Your task to perform on an android device: turn pop-ups on in chrome Image 0: 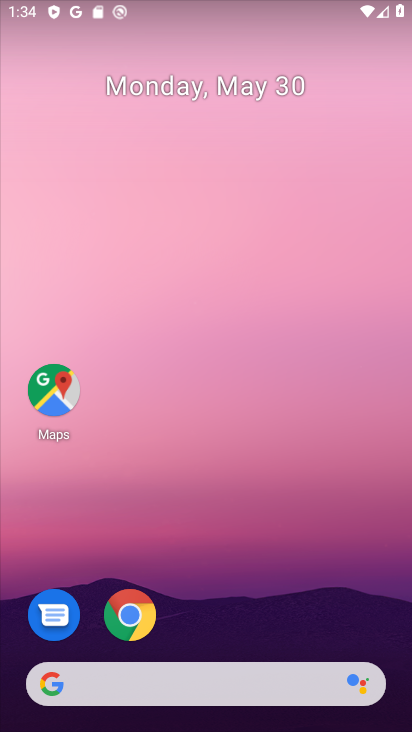
Step 0: click (134, 635)
Your task to perform on an android device: turn pop-ups on in chrome Image 1: 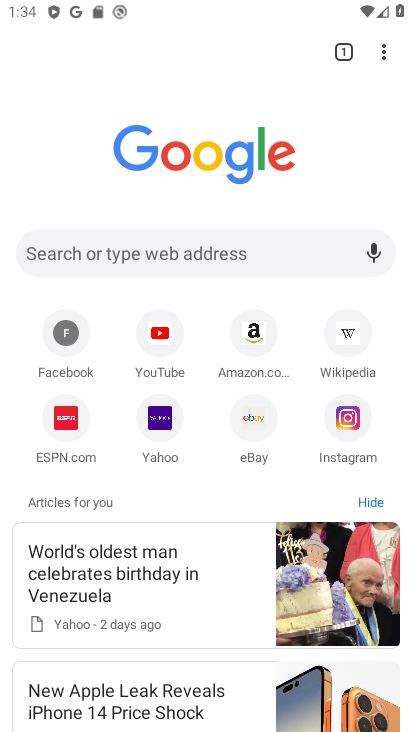
Step 1: click (385, 44)
Your task to perform on an android device: turn pop-ups on in chrome Image 2: 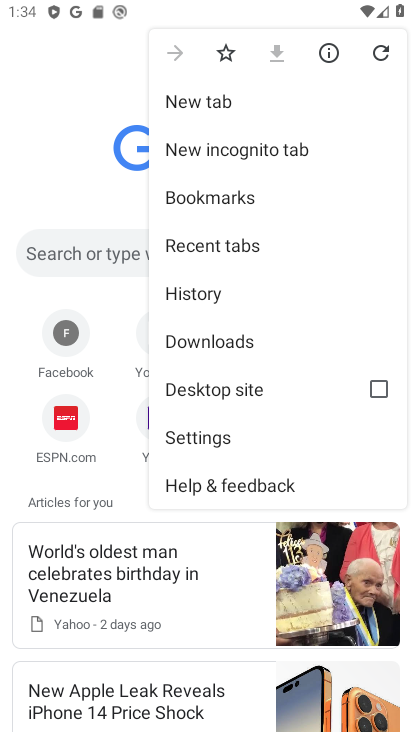
Step 2: click (215, 431)
Your task to perform on an android device: turn pop-ups on in chrome Image 3: 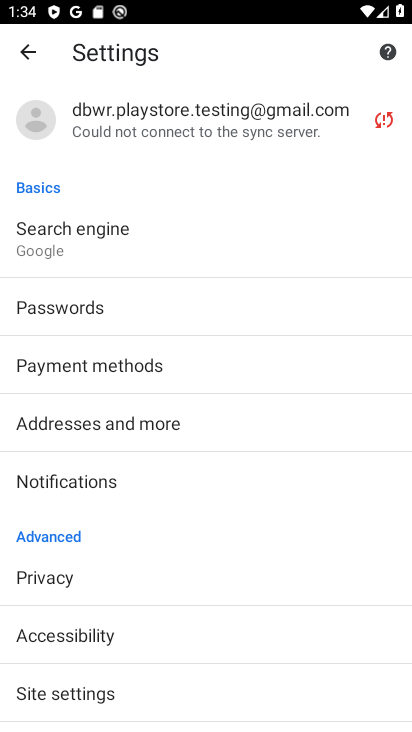
Step 3: drag from (170, 629) to (145, 461)
Your task to perform on an android device: turn pop-ups on in chrome Image 4: 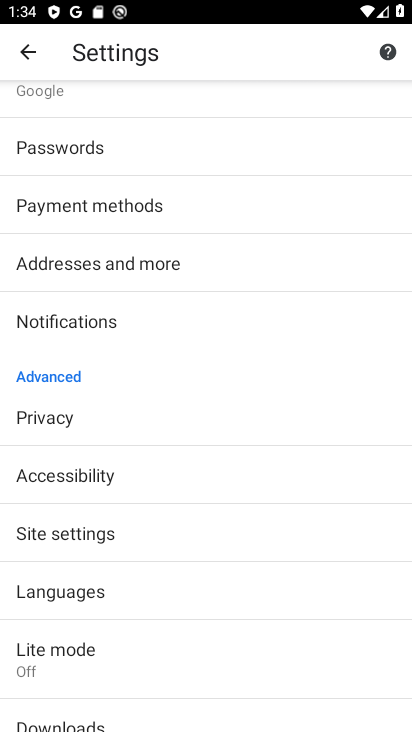
Step 4: click (89, 542)
Your task to perform on an android device: turn pop-ups on in chrome Image 5: 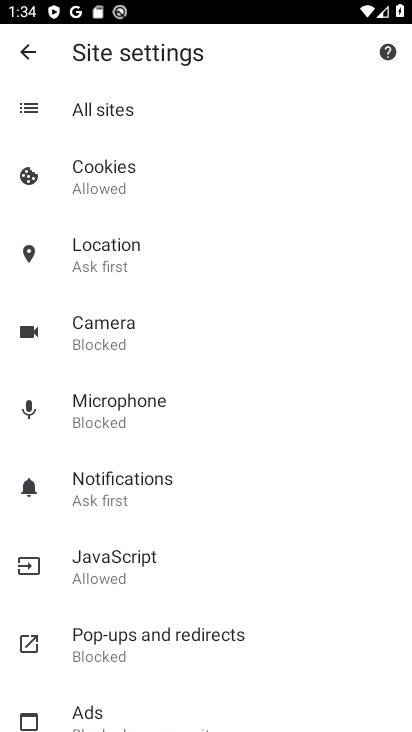
Step 5: click (115, 638)
Your task to perform on an android device: turn pop-ups on in chrome Image 6: 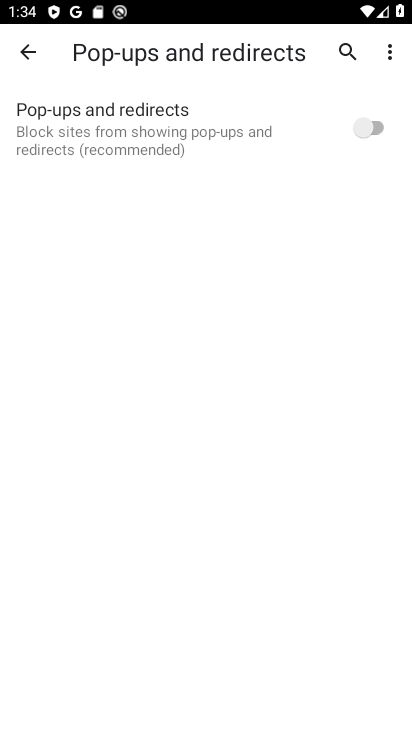
Step 6: click (380, 129)
Your task to perform on an android device: turn pop-ups on in chrome Image 7: 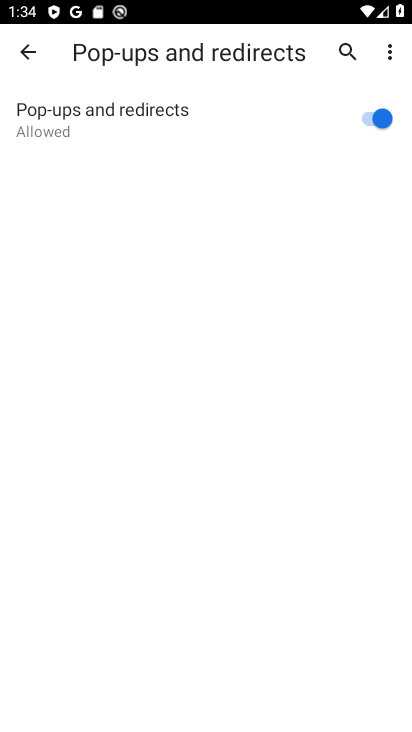
Step 7: task complete